Your task to perform on an android device: change notification settings in the gmail app Image 0: 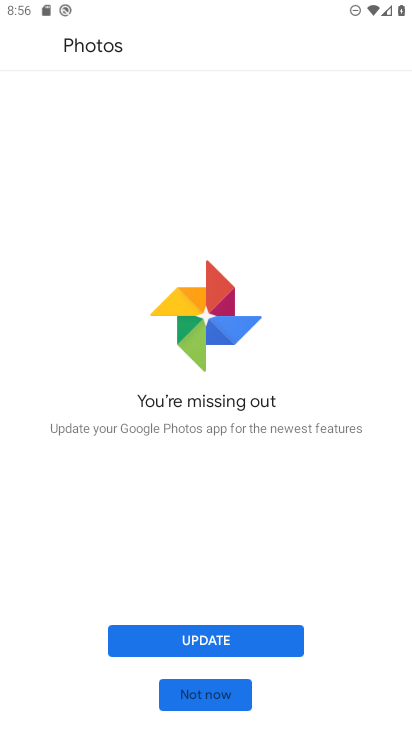
Step 0: press home button
Your task to perform on an android device: change notification settings in the gmail app Image 1: 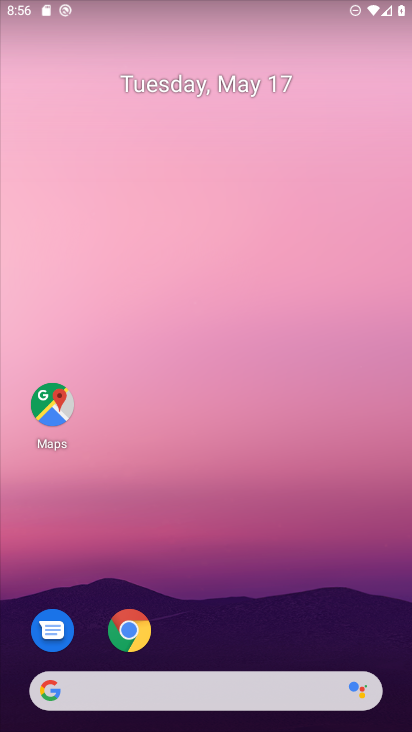
Step 1: drag from (377, 623) to (371, 104)
Your task to perform on an android device: change notification settings in the gmail app Image 2: 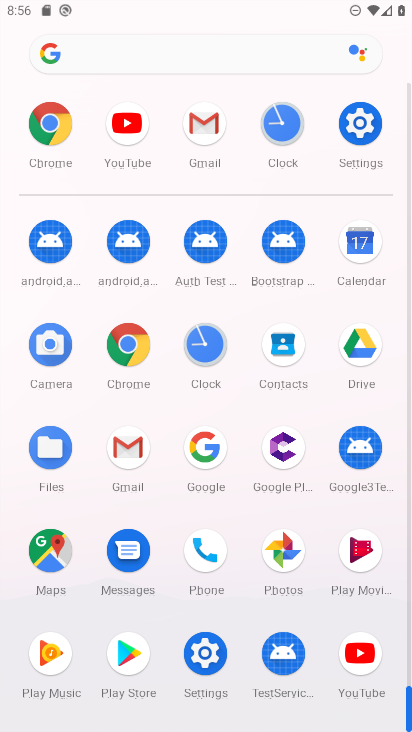
Step 2: click (133, 457)
Your task to perform on an android device: change notification settings in the gmail app Image 3: 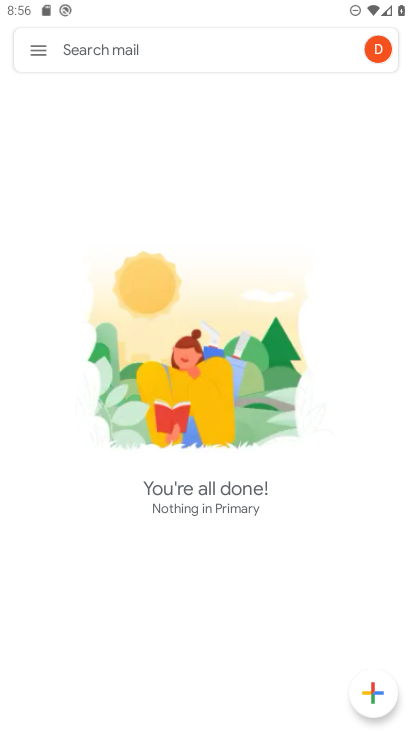
Step 3: click (36, 50)
Your task to perform on an android device: change notification settings in the gmail app Image 4: 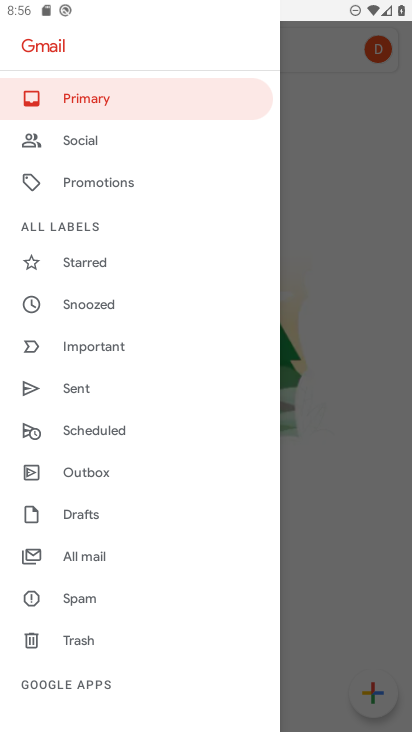
Step 4: drag from (185, 603) to (211, 446)
Your task to perform on an android device: change notification settings in the gmail app Image 5: 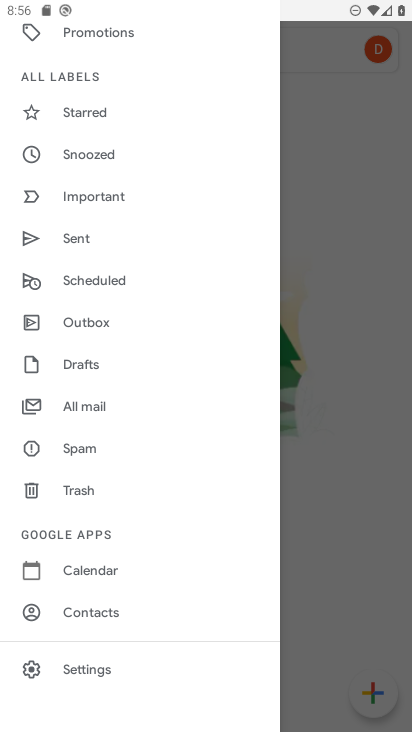
Step 5: drag from (196, 593) to (201, 446)
Your task to perform on an android device: change notification settings in the gmail app Image 6: 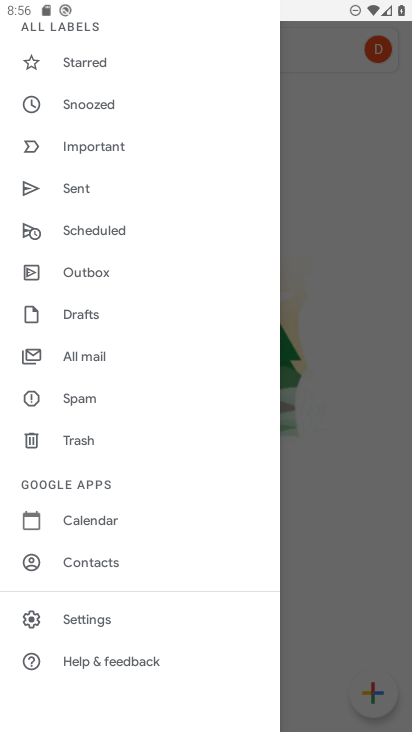
Step 6: click (106, 622)
Your task to perform on an android device: change notification settings in the gmail app Image 7: 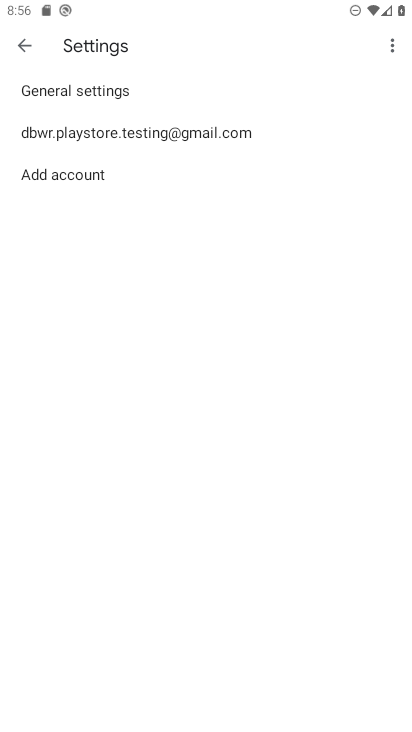
Step 7: click (190, 136)
Your task to perform on an android device: change notification settings in the gmail app Image 8: 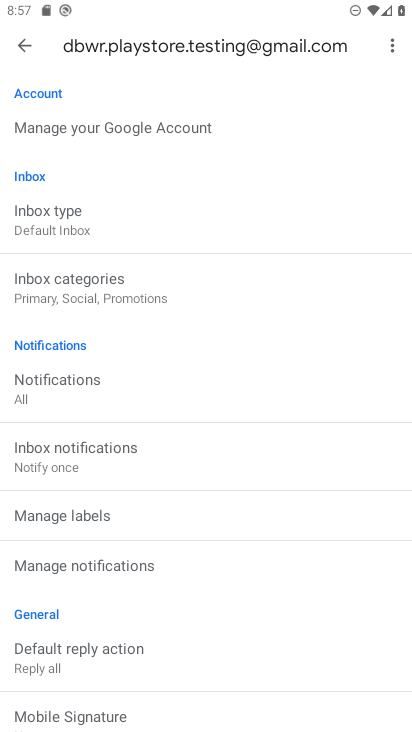
Step 8: drag from (288, 584) to (290, 423)
Your task to perform on an android device: change notification settings in the gmail app Image 9: 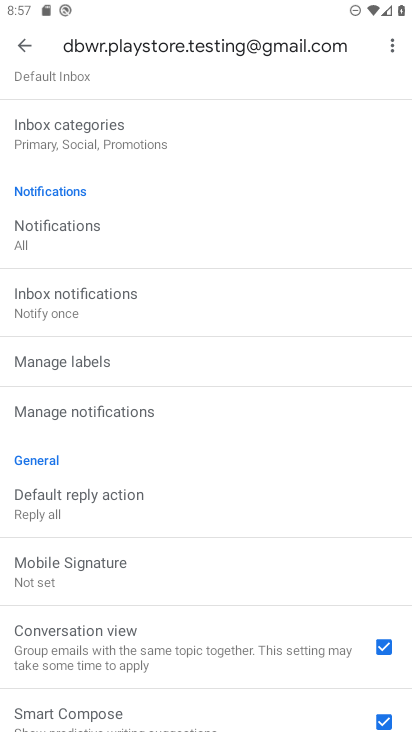
Step 9: drag from (279, 623) to (283, 446)
Your task to perform on an android device: change notification settings in the gmail app Image 10: 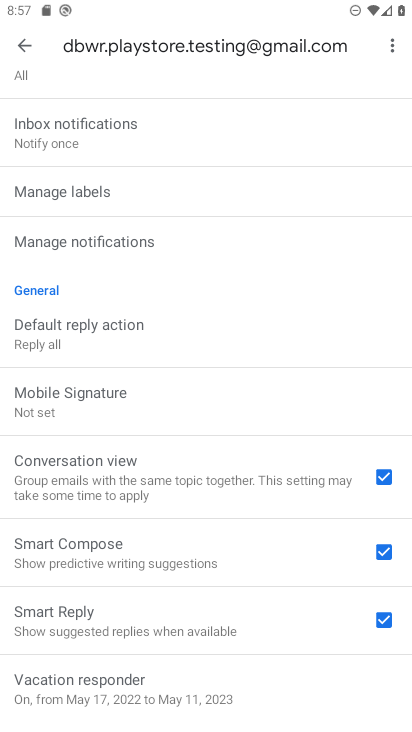
Step 10: drag from (245, 677) to (260, 454)
Your task to perform on an android device: change notification settings in the gmail app Image 11: 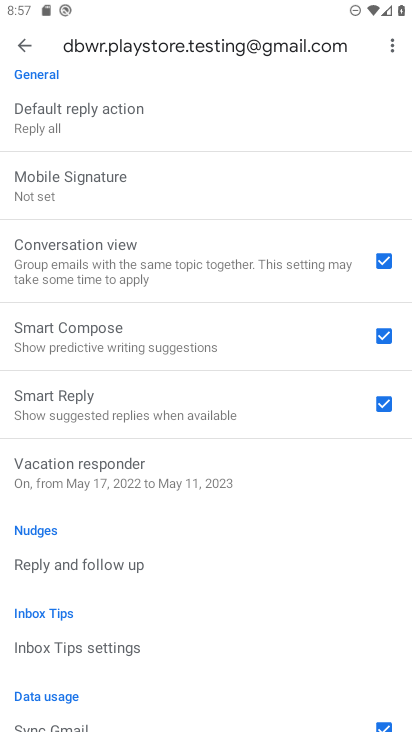
Step 11: drag from (266, 607) to (284, 492)
Your task to perform on an android device: change notification settings in the gmail app Image 12: 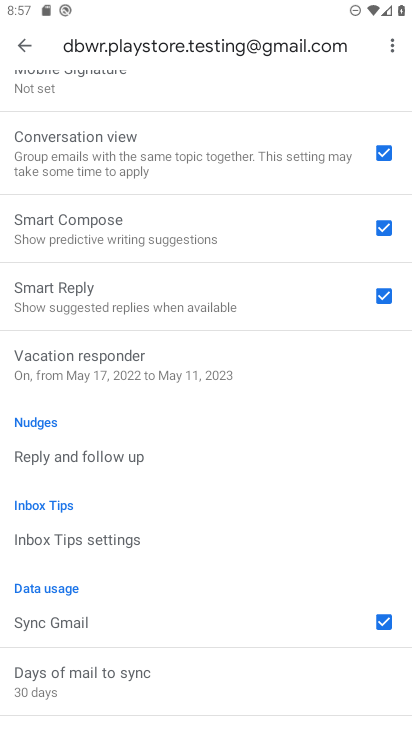
Step 12: drag from (267, 584) to (285, 414)
Your task to perform on an android device: change notification settings in the gmail app Image 13: 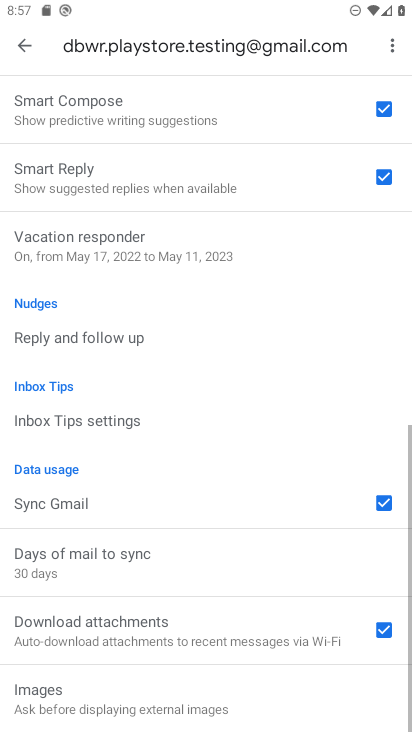
Step 13: drag from (270, 671) to (280, 441)
Your task to perform on an android device: change notification settings in the gmail app Image 14: 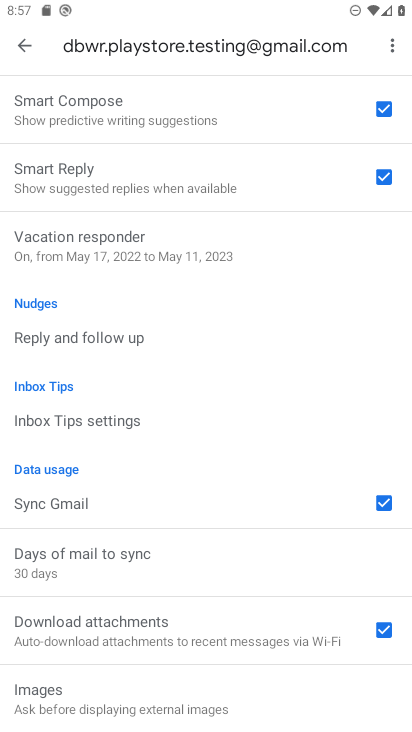
Step 14: drag from (294, 223) to (283, 437)
Your task to perform on an android device: change notification settings in the gmail app Image 15: 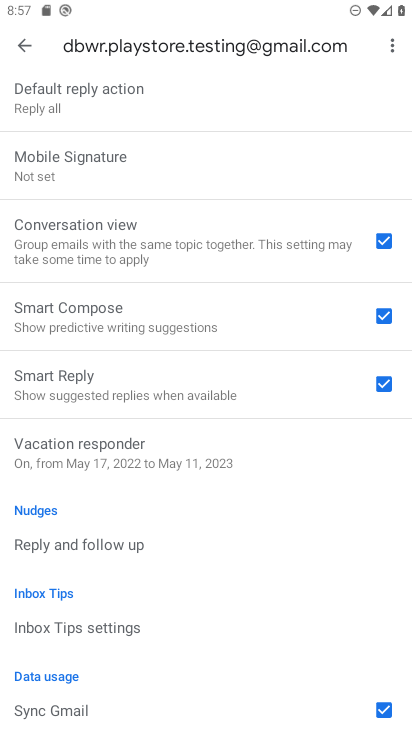
Step 15: drag from (288, 300) to (264, 436)
Your task to perform on an android device: change notification settings in the gmail app Image 16: 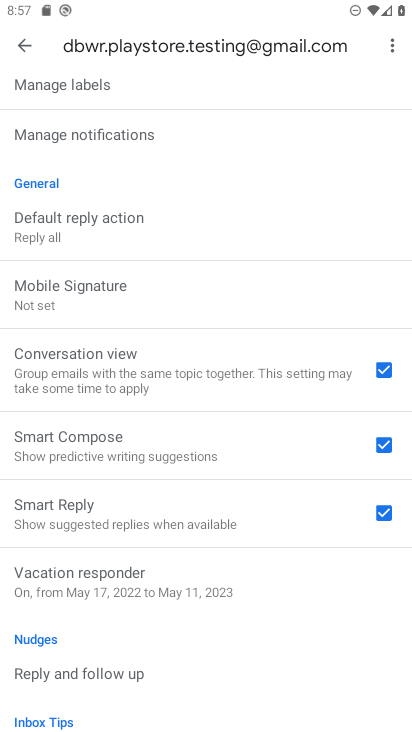
Step 16: drag from (249, 161) to (225, 374)
Your task to perform on an android device: change notification settings in the gmail app Image 17: 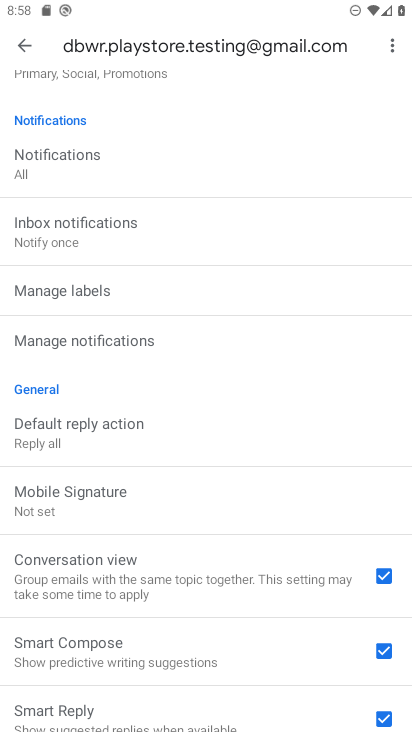
Step 17: click (182, 329)
Your task to perform on an android device: change notification settings in the gmail app Image 18: 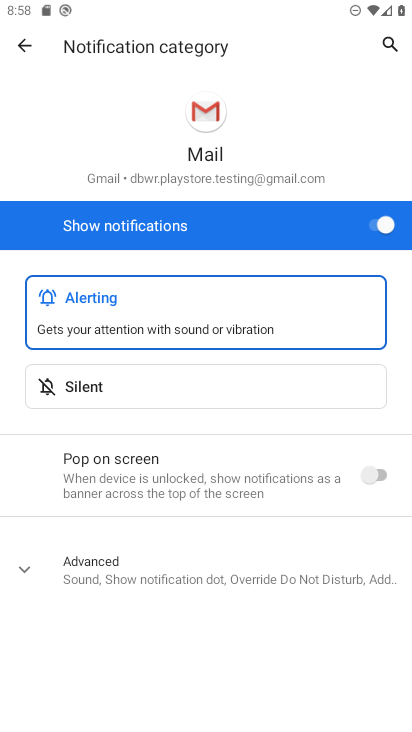
Step 18: click (385, 227)
Your task to perform on an android device: change notification settings in the gmail app Image 19: 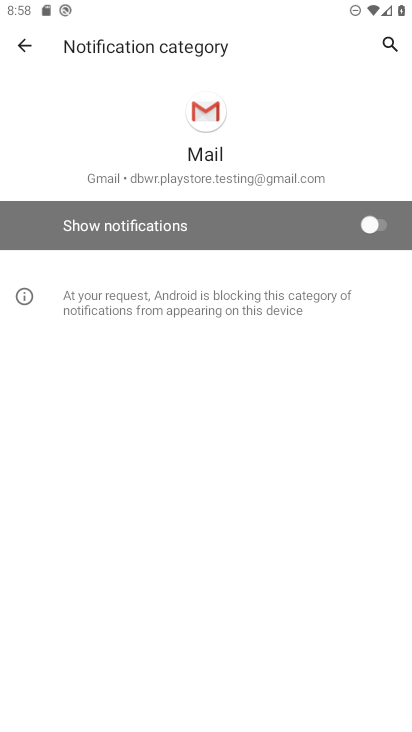
Step 19: task complete